Your task to perform on an android device: turn on the 12-hour format for clock Image 0: 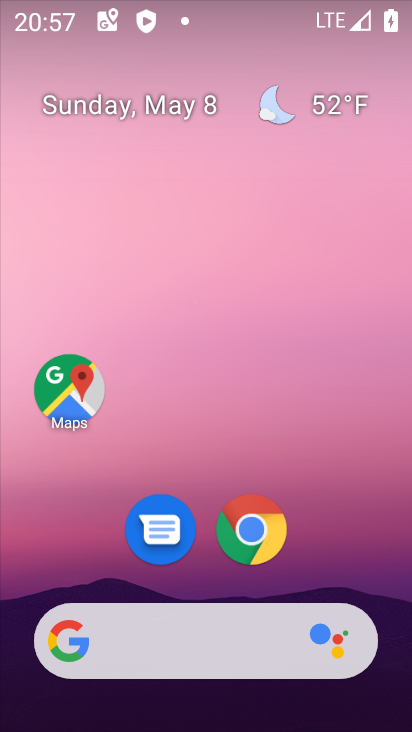
Step 0: drag from (391, 559) to (374, 146)
Your task to perform on an android device: turn on the 12-hour format for clock Image 1: 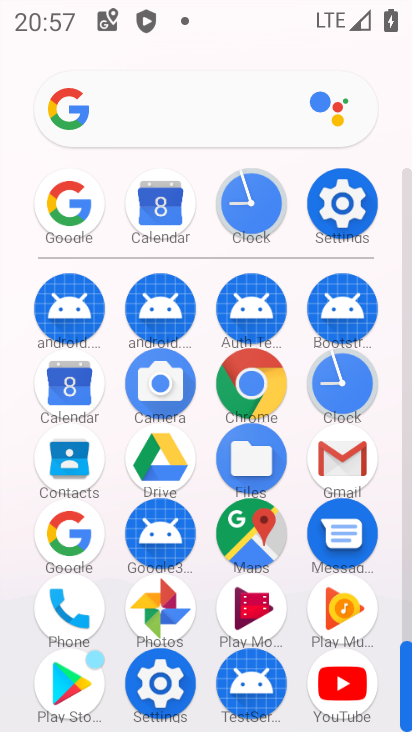
Step 1: click (353, 363)
Your task to perform on an android device: turn on the 12-hour format for clock Image 2: 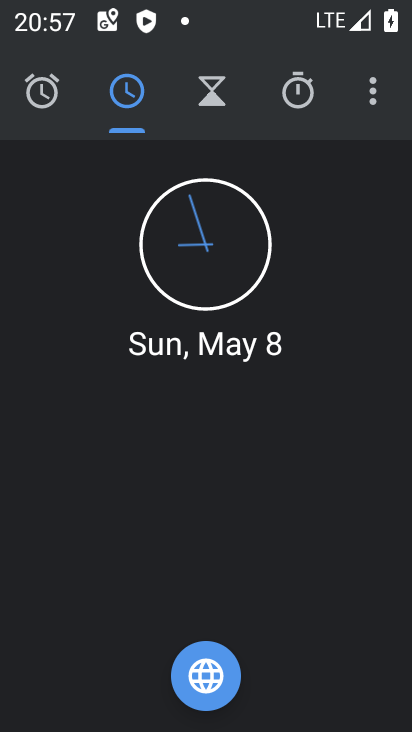
Step 2: click (374, 101)
Your task to perform on an android device: turn on the 12-hour format for clock Image 3: 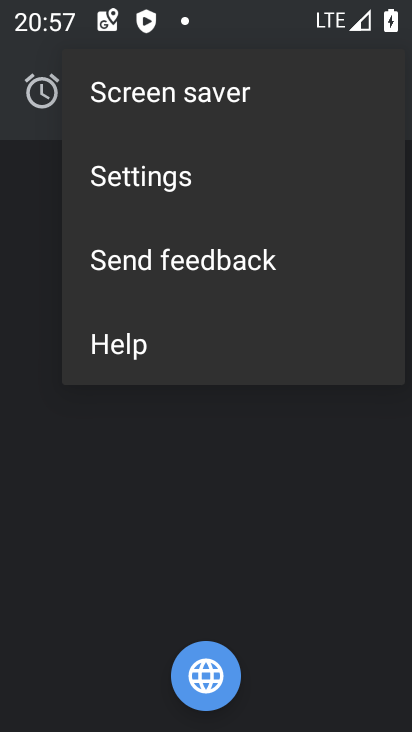
Step 3: click (199, 192)
Your task to perform on an android device: turn on the 12-hour format for clock Image 4: 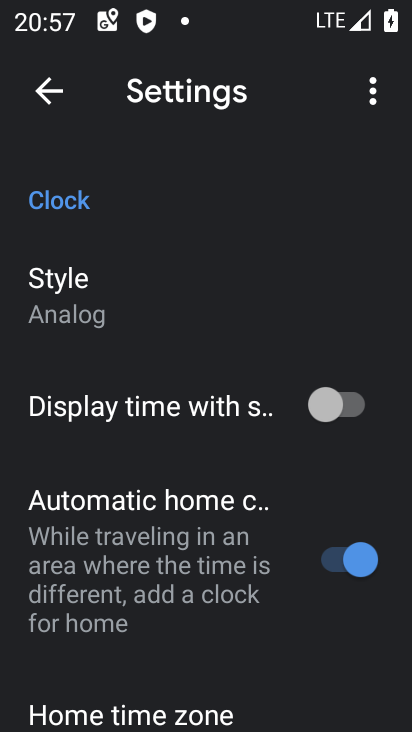
Step 4: drag from (236, 633) to (252, 321)
Your task to perform on an android device: turn on the 12-hour format for clock Image 5: 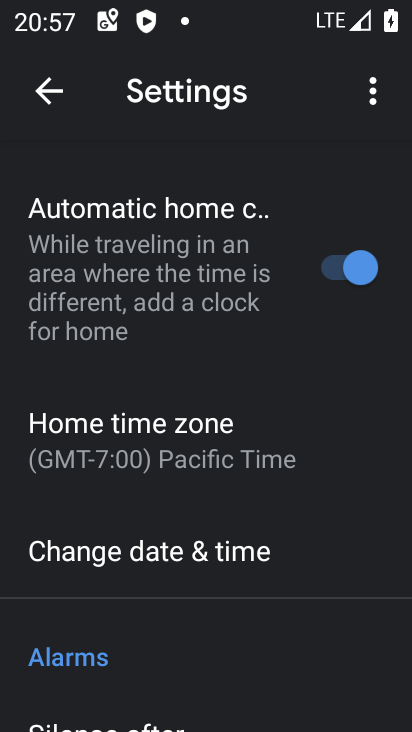
Step 5: click (250, 571)
Your task to perform on an android device: turn on the 12-hour format for clock Image 6: 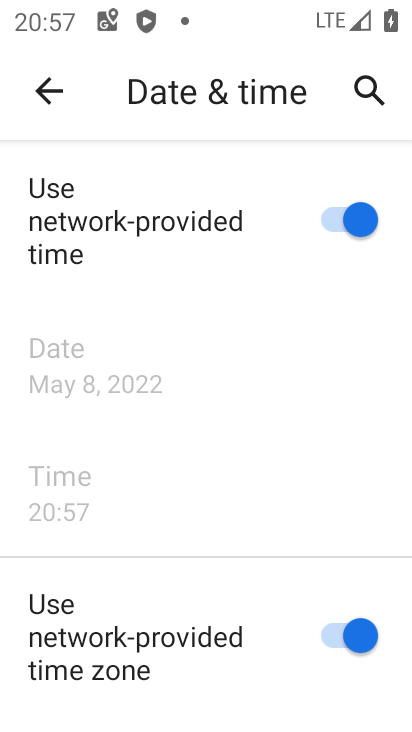
Step 6: drag from (265, 670) to (291, 300)
Your task to perform on an android device: turn on the 12-hour format for clock Image 7: 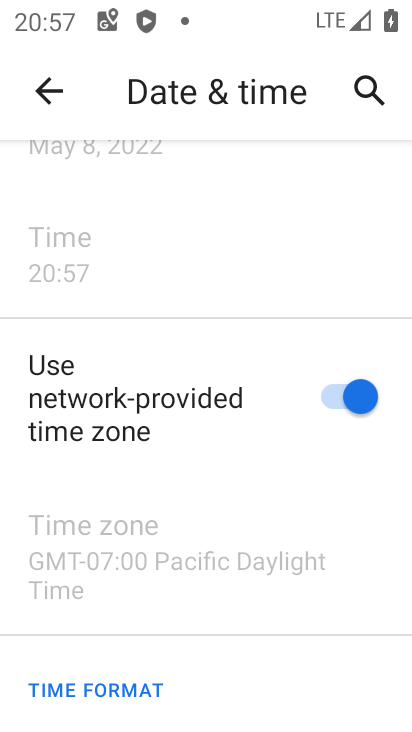
Step 7: drag from (254, 689) to (232, 375)
Your task to perform on an android device: turn on the 12-hour format for clock Image 8: 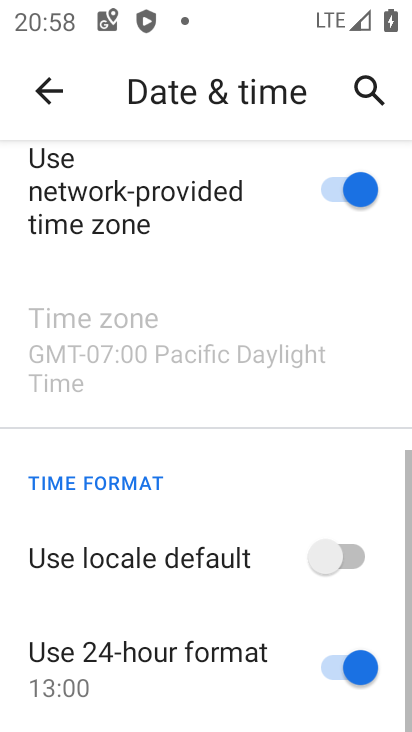
Step 8: click (331, 676)
Your task to perform on an android device: turn on the 12-hour format for clock Image 9: 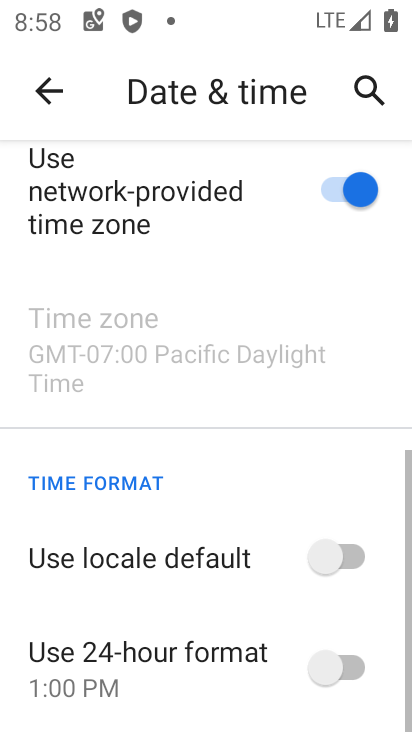
Step 9: click (358, 553)
Your task to perform on an android device: turn on the 12-hour format for clock Image 10: 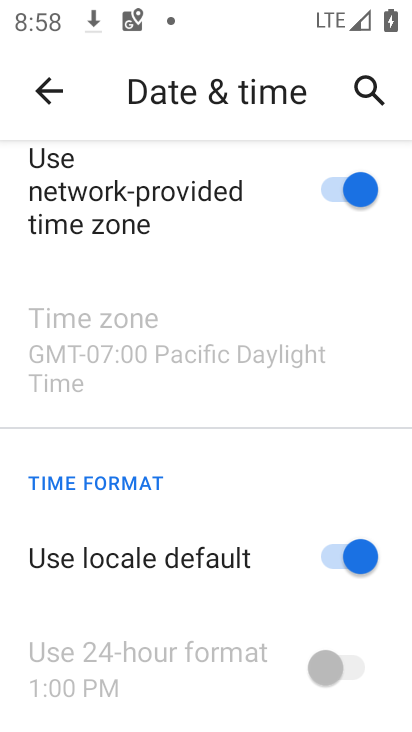
Step 10: task complete